Your task to perform on an android device: set default search engine in the chrome app Image 0: 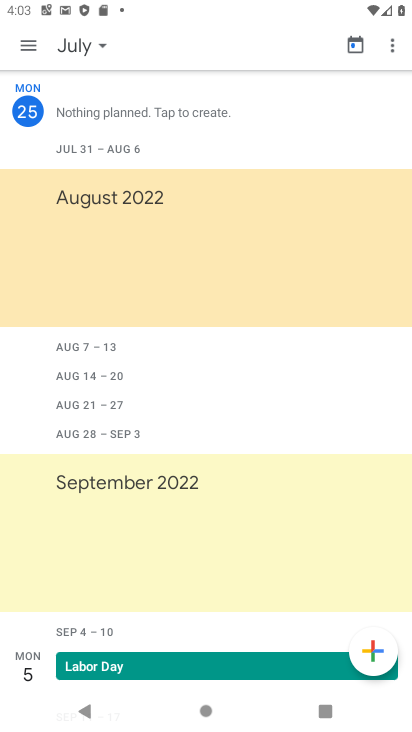
Step 0: press home button
Your task to perform on an android device: set default search engine in the chrome app Image 1: 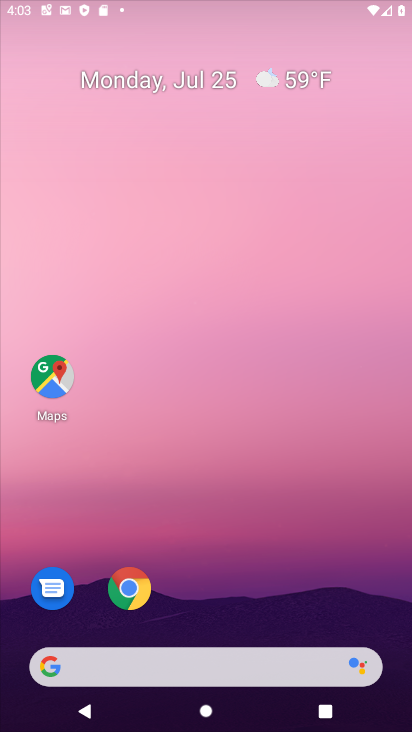
Step 1: drag from (266, 606) to (306, 103)
Your task to perform on an android device: set default search engine in the chrome app Image 2: 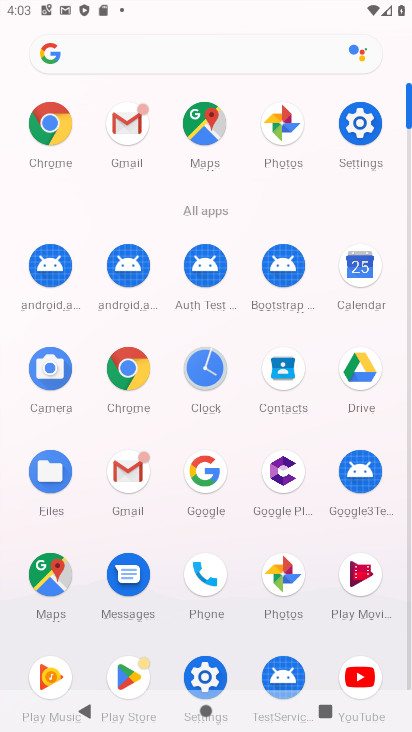
Step 2: click (137, 361)
Your task to perform on an android device: set default search engine in the chrome app Image 3: 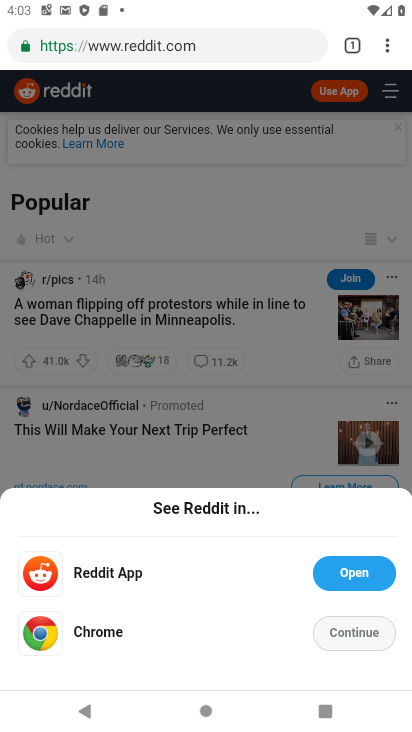
Step 3: click (382, 44)
Your task to perform on an android device: set default search engine in the chrome app Image 4: 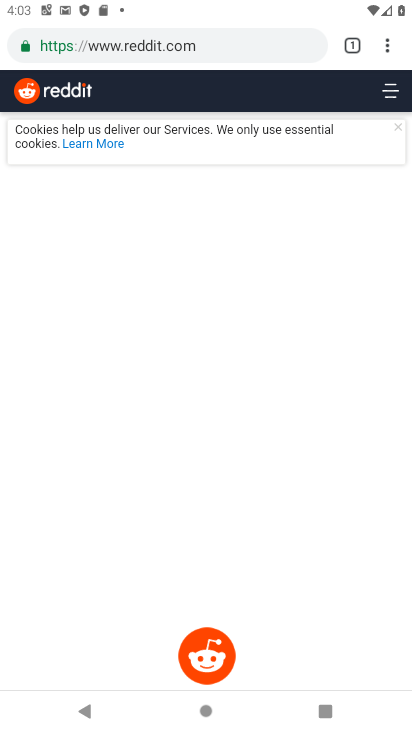
Step 4: drag from (385, 42) to (242, 537)
Your task to perform on an android device: set default search engine in the chrome app Image 5: 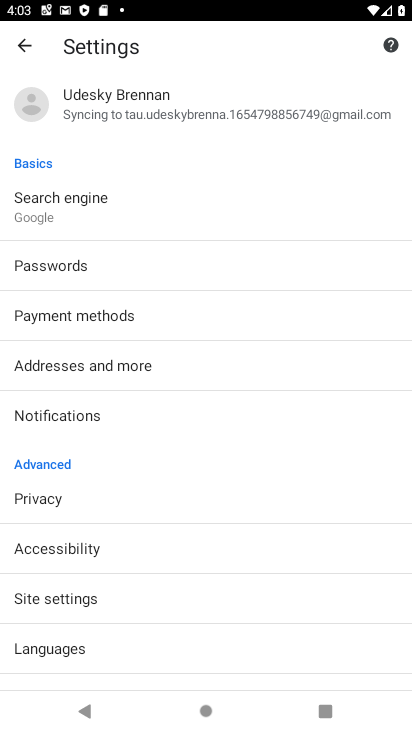
Step 5: click (106, 194)
Your task to perform on an android device: set default search engine in the chrome app Image 6: 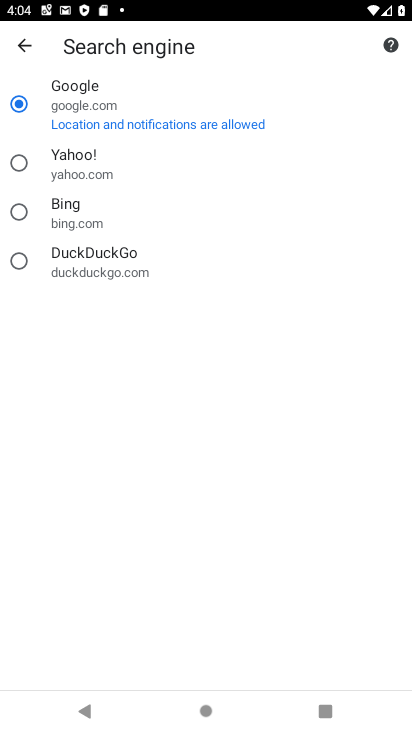
Step 6: task complete